Your task to perform on an android device: turn off improve location accuracy Image 0: 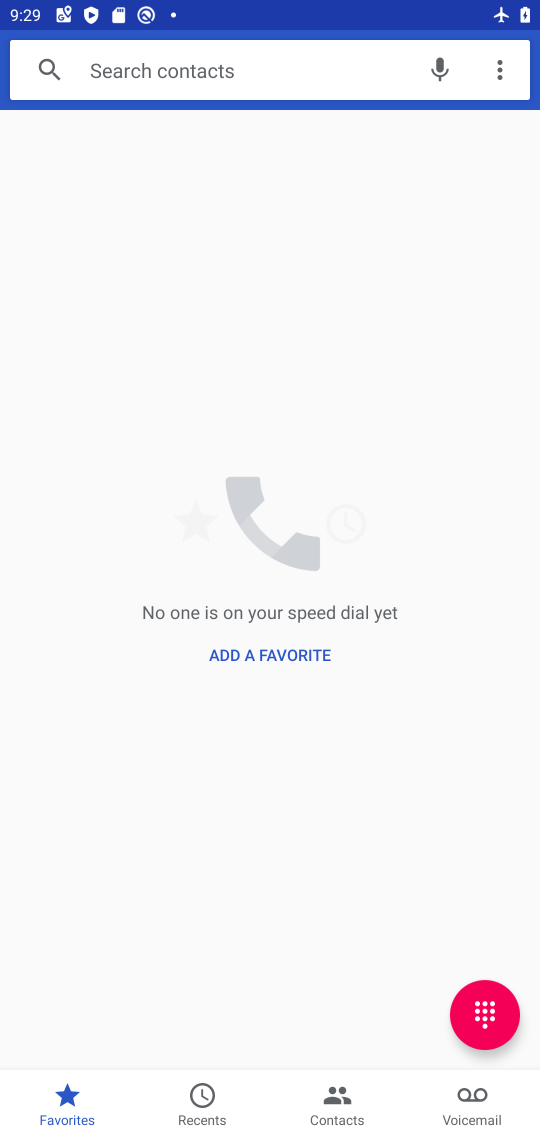
Step 0: press back button
Your task to perform on an android device: turn off improve location accuracy Image 1: 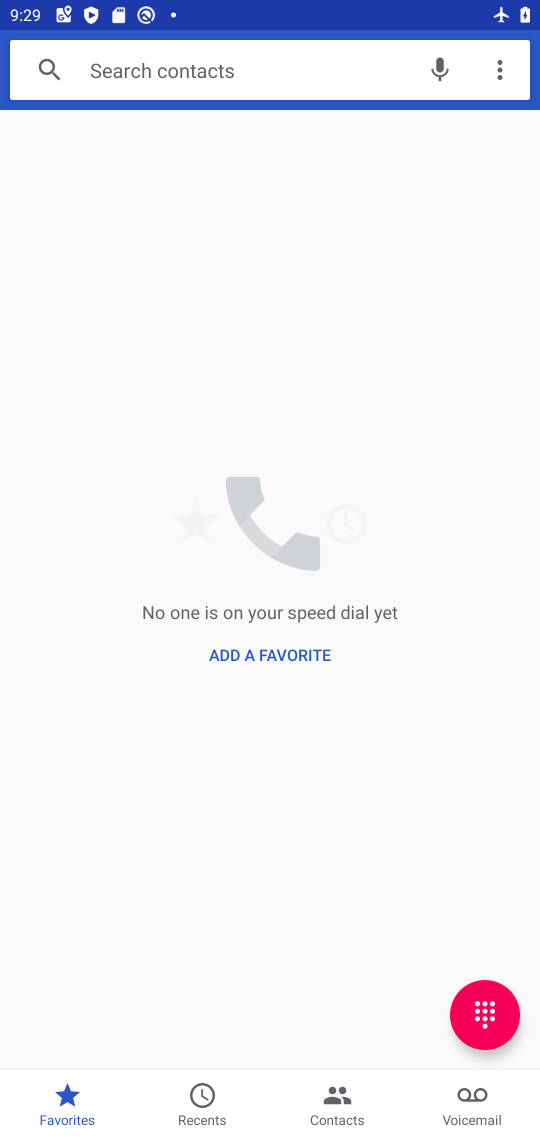
Step 1: press home button
Your task to perform on an android device: turn off improve location accuracy Image 2: 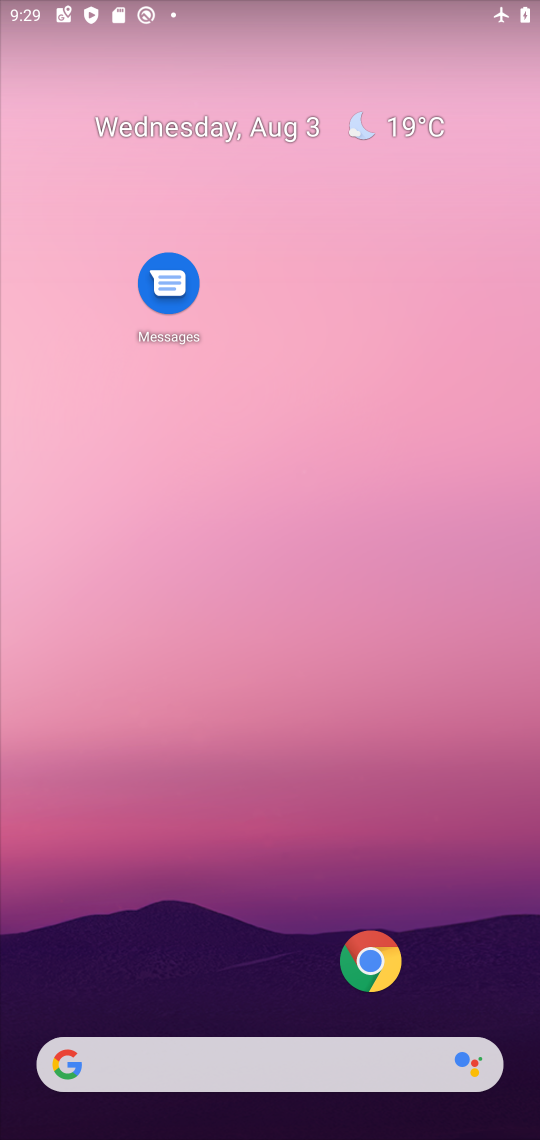
Step 2: drag from (300, 1025) to (241, 10)
Your task to perform on an android device: turn off improve location accuracy Image 3: 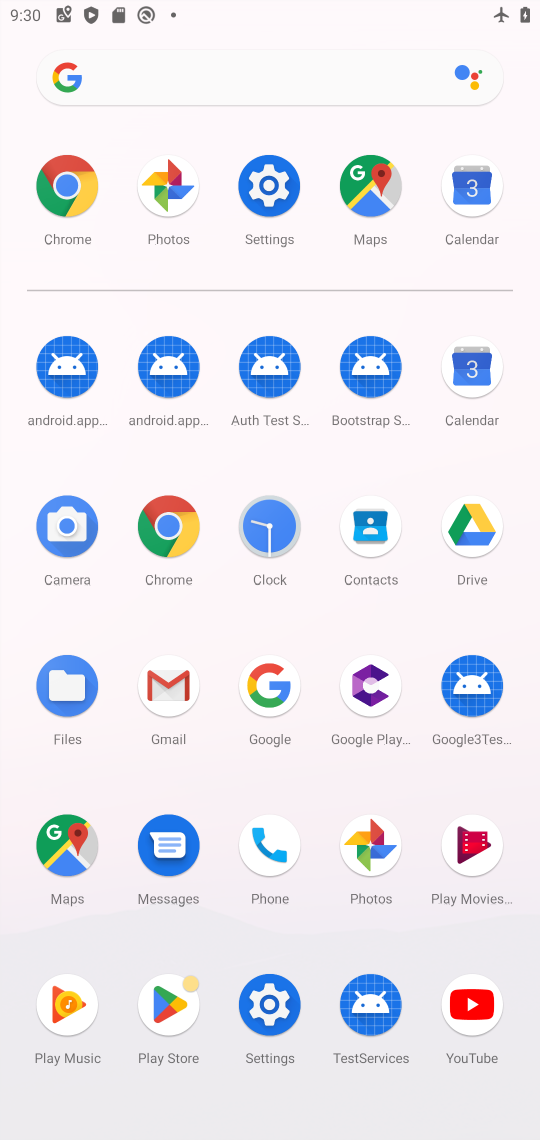
Step 3: click (260, 184)
Your task to perform on an android device: turn off improve location accuracy Image 4: 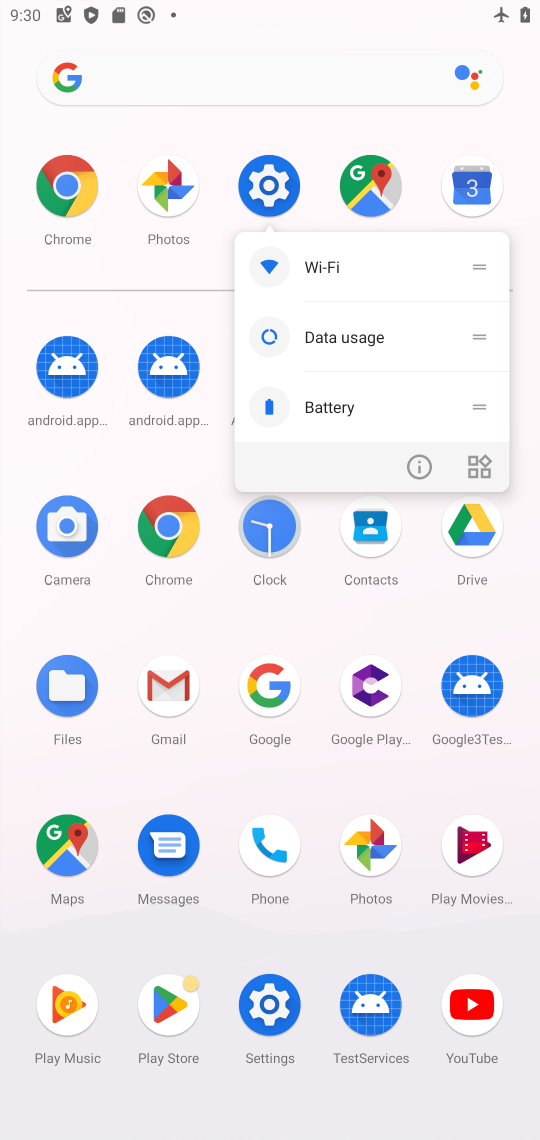
Step 4: click (260, 184)
Your task to perform on an android device: turn off improve location accuracy Image 5: 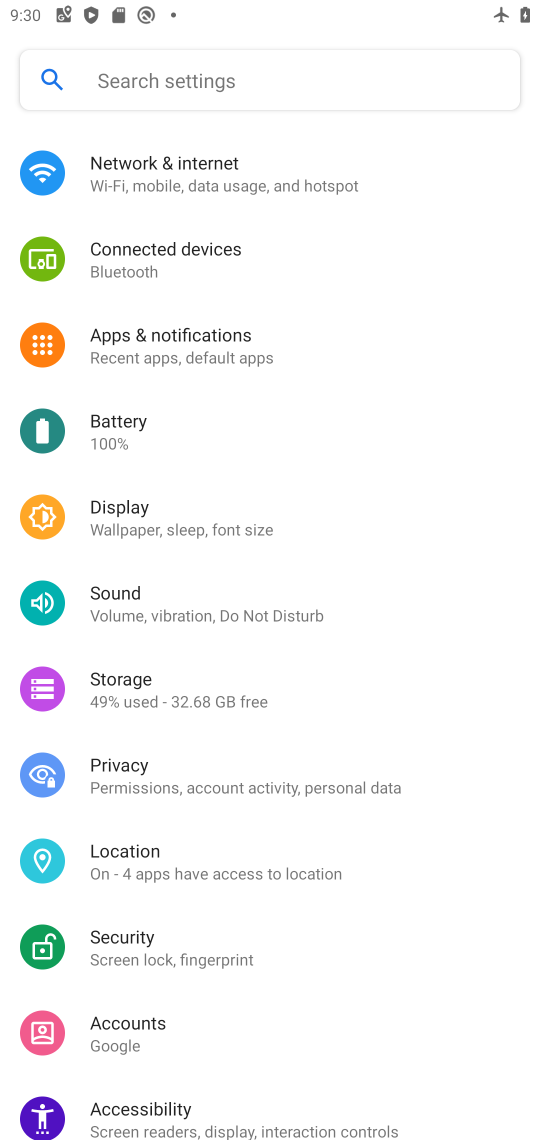
Step 5: drag from (182, 921) to (86, 413)
Your task to perform on an android device: turn off improve location accuracy Image 6: 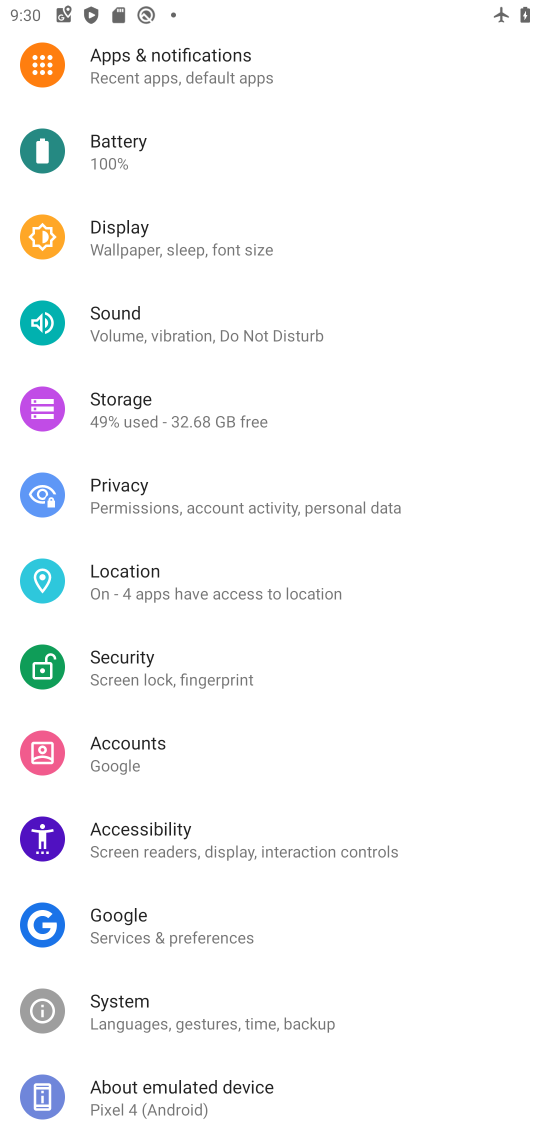
Step 6: click (128, 598)
Your task to perform on an android device: turn off improve location accuracy Image 7: 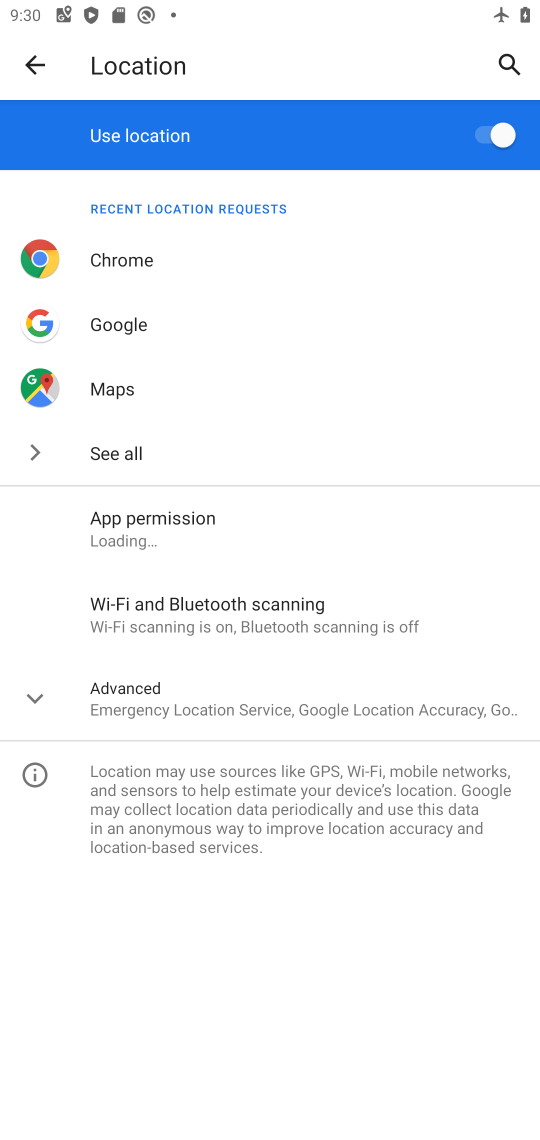
Step 7: click (121, 675)
Your task to perform on an android device: turn off improve location accuracy Image 8: 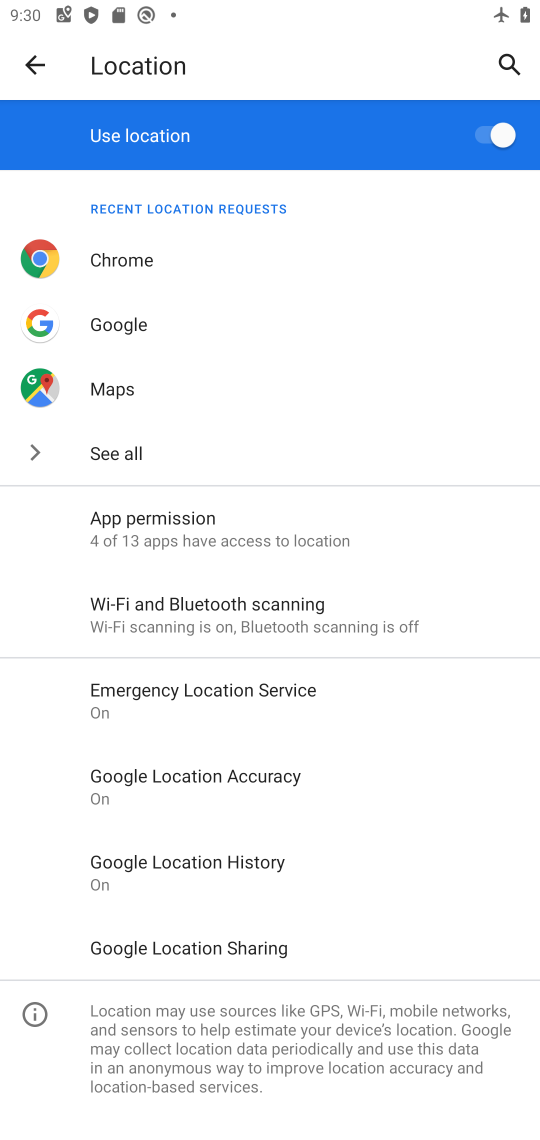
Step 8: click (140, 815)
Your task to perform on an android device: turn off improve location accuracy Image 9: 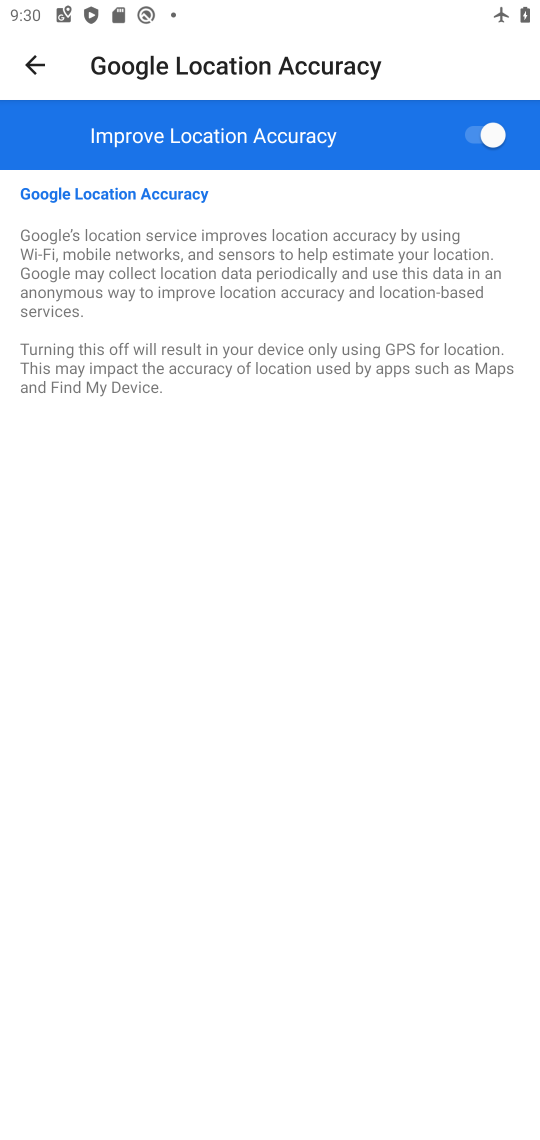
Step 9: click (459, 126)
Your task to perform on an android device: turn off improve location accuracy Image 10: 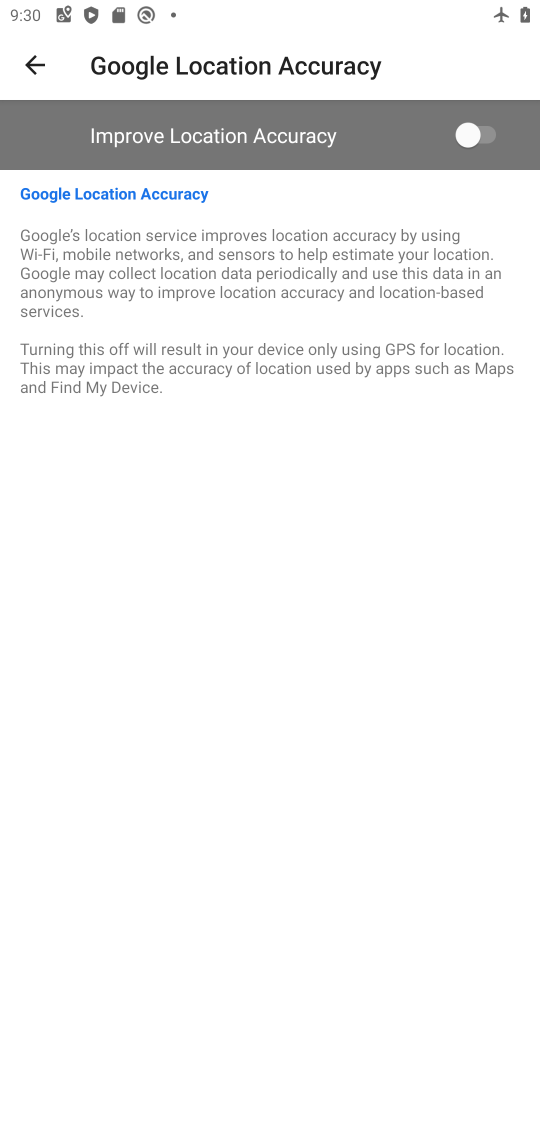
Step 10: task complete